Your task to perform on an android device: turn notification dots off Image 0: 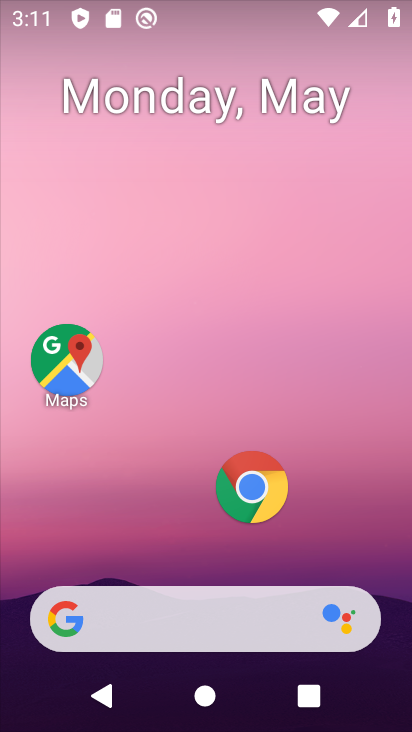
Step 0: drag from (177, 555) to (163, 89)
Your task to perform on an android device: turn notification dots off Image 1: 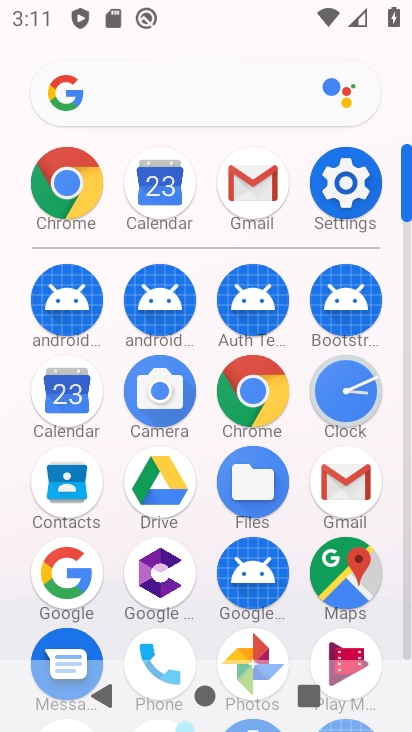
Step 1: click (358, 182)
Your task to perform on an android device: turn notification dots off Image 2: 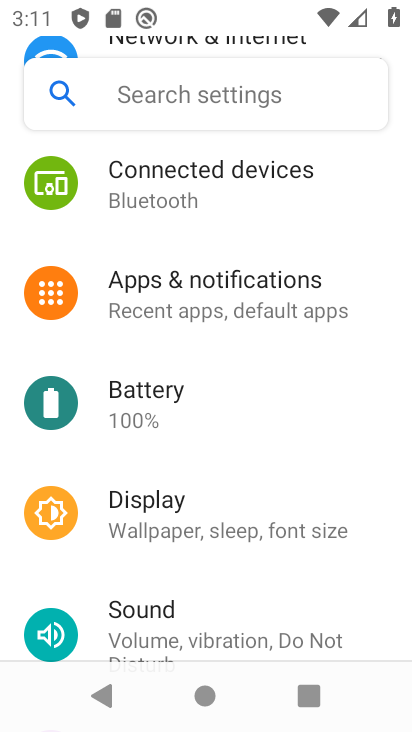
Step 2: click (235, 288)
Your task to perform on an android device: turn notification dots off Image 3: 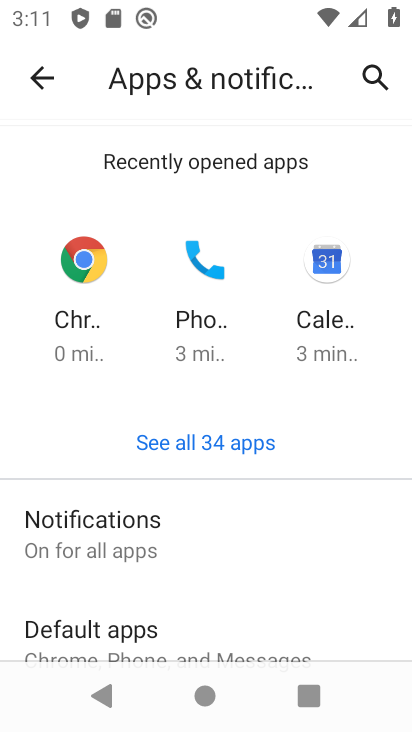
Step 3: click (146, 544)
Your task to perform on an android device: turn notification dots off Image 4: 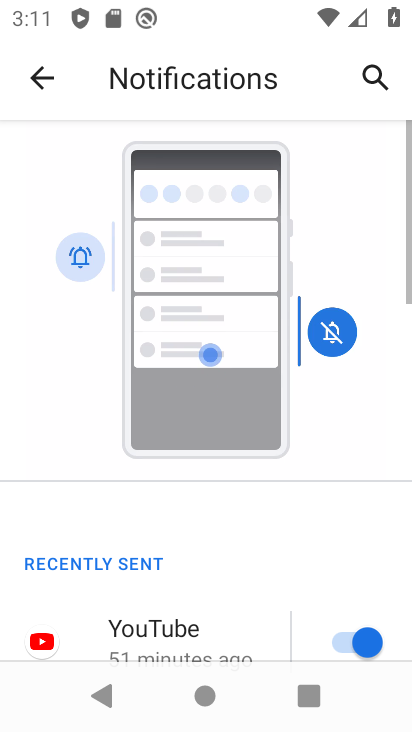
Step 4: drag from (194, 627) to (224, 189)
Your task to perform on an android device: turn notification dots off Image 5: 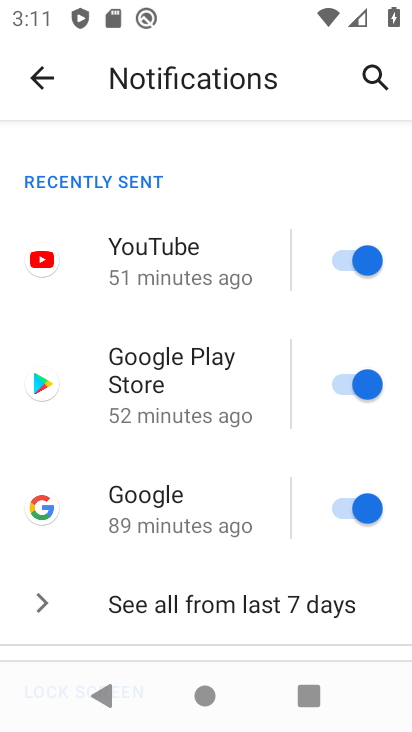
Step 5: drag from (225, 566) to (223, 118)
Your task to perform on an android device: turn notification dots off Image 6: 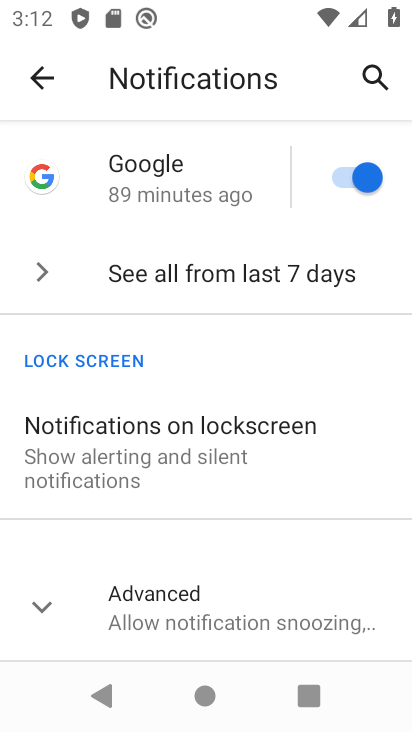
Step 6: click (201, 608)
Your task to perform on an android device: turn notification dots off Image 7: 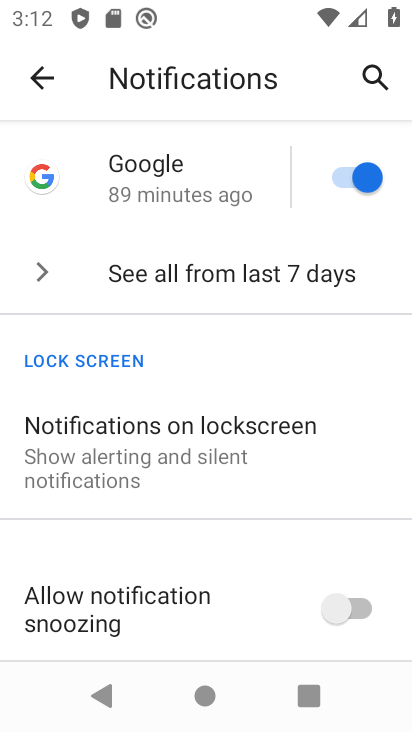
Step 7: drag from (200, 630) to (202, 292)
Your task to perform on an android device: turn notification dots off Image 8: 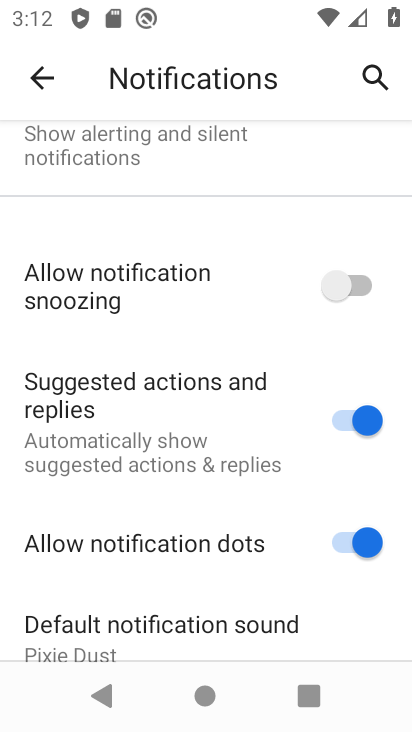
Step 8: click (353, 552)
Your task to perform on an android device: turn notification dots off Image 9: 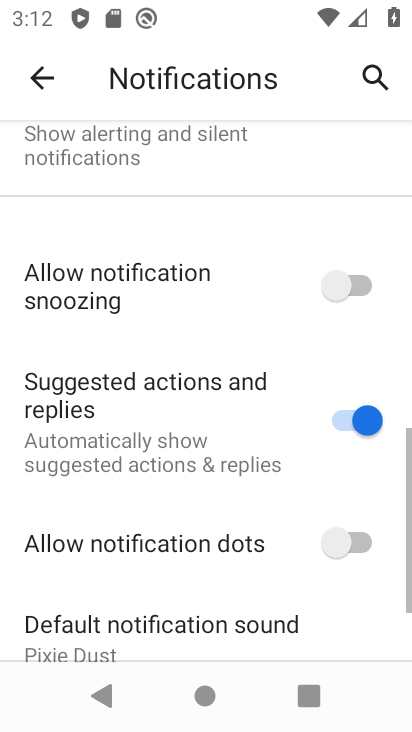
Step 9: task complete